Your task to perform on an android device: read, delete, or share a saved page in the chrome app Image 0: 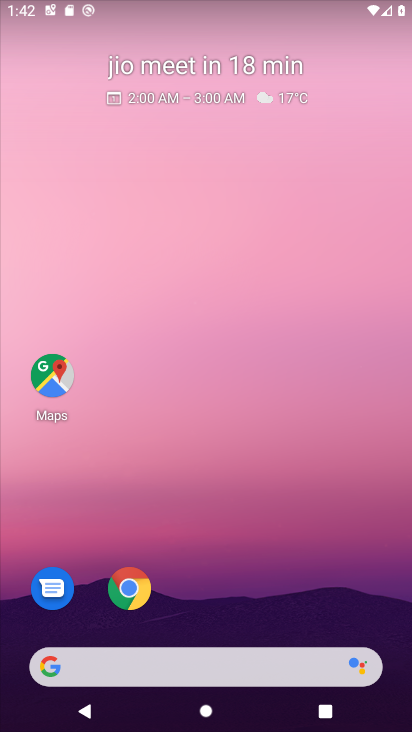
Step 0: click (121, 592)
Your task to perform on an android device: read, delete, or share a saved page in the chrome app Image 1: 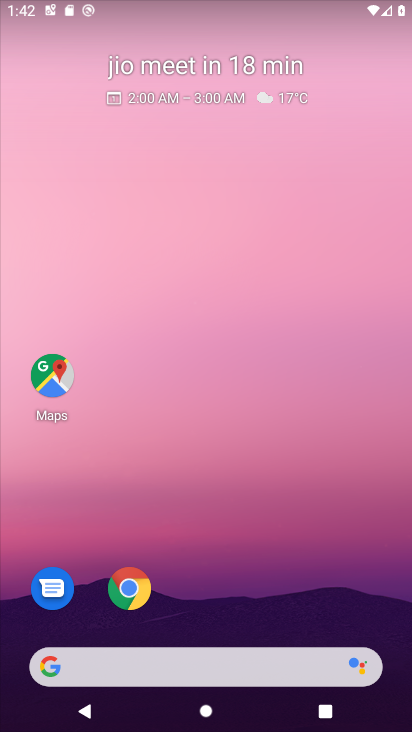
Step 1: click (121, 592)
Your task to perform on an android device: read, delete, or share a saved page in the chrome app Image 2: 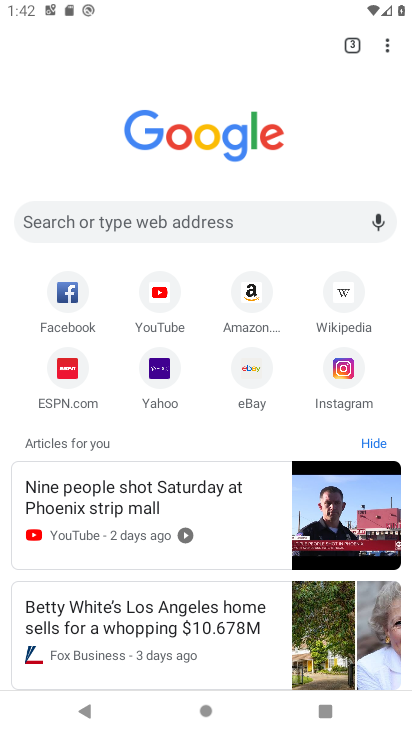
Step 2: click (389, 45)
Your task to perform on an android device: read, delete, or share a saved page in the chrome app Image 3: 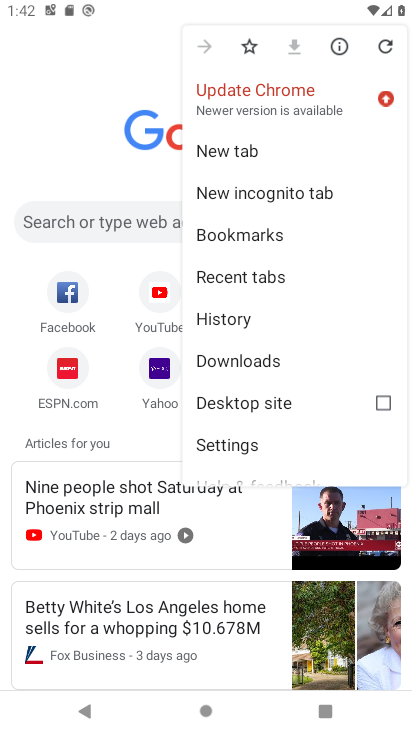
Step 3: click (279, 364)
Your task to perform on an android device: read, delete, or share a saved page in the chrome app Image 4: 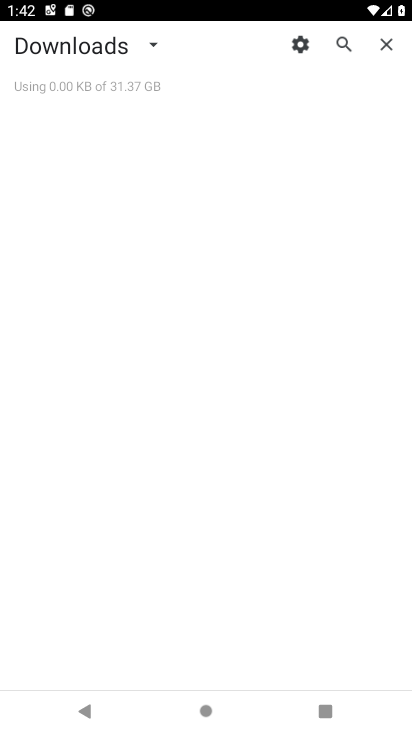
Step 4: task complete